Your task to perform on an android device: change alarm snooze length Image 0: 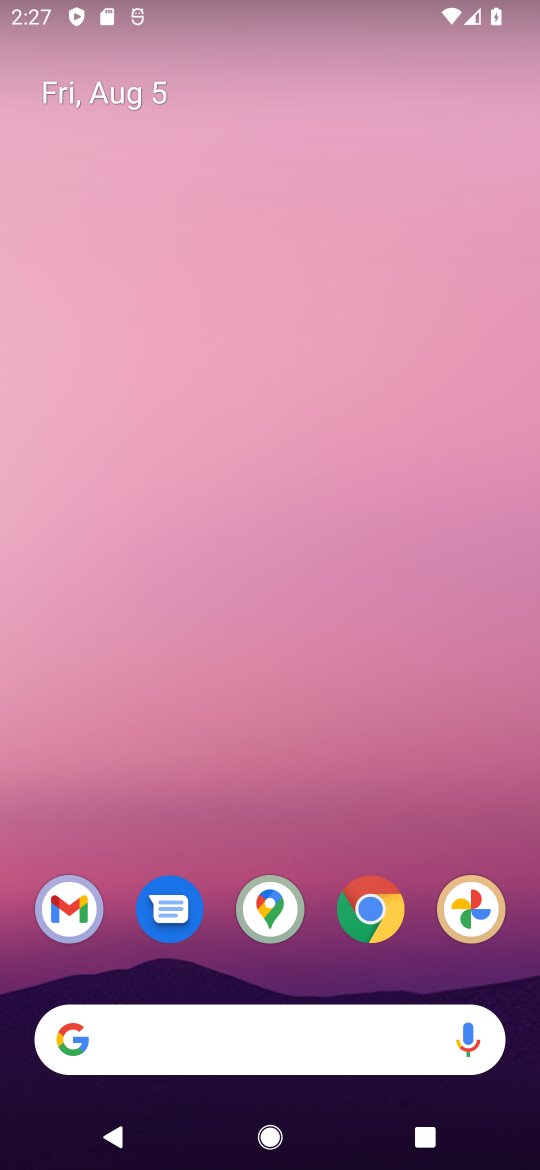
Step 0: drag from (230, 995) to (282, 201)
Your task to perform on an android device: change alarm snooze length Image 1: 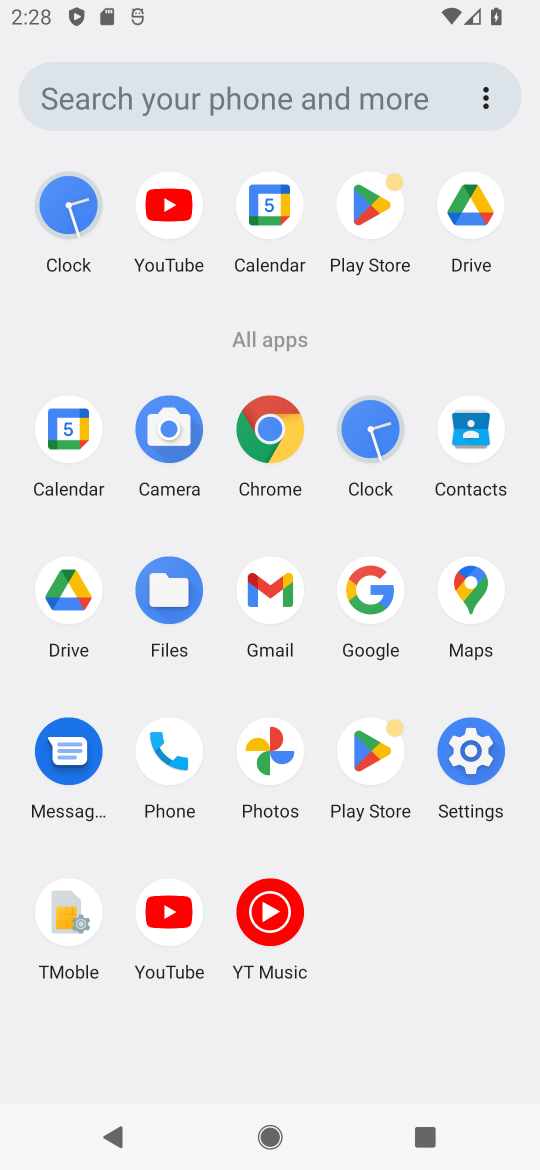
Step 1: click (358, 465)
Your task to perform on an android device: change alarm snooze length Image 2: 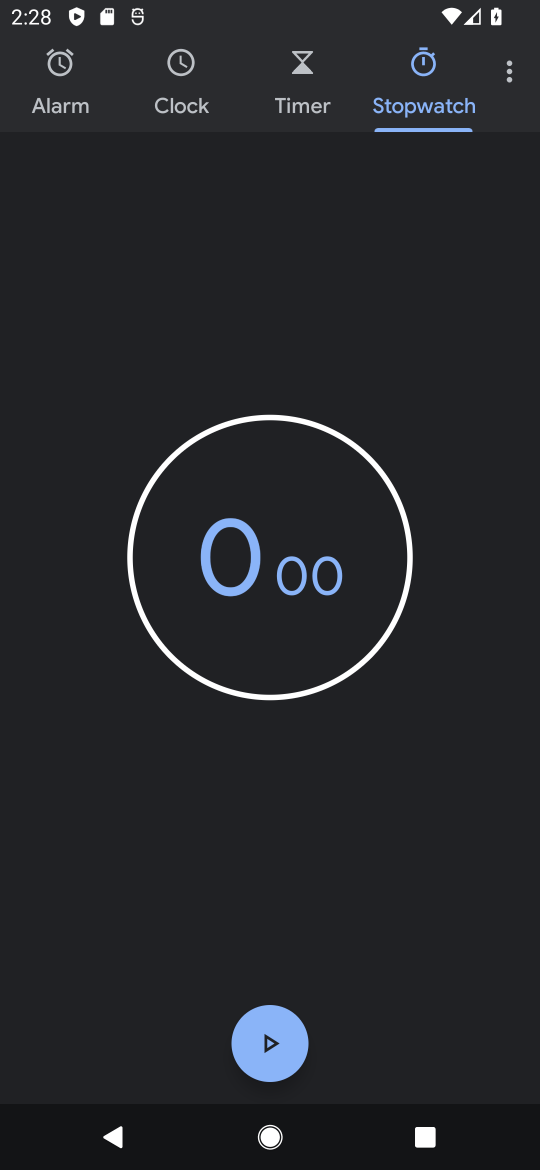
Step 2: click (69, 125)
Your task to perform on an android device: change alarm snooze length Image 3: 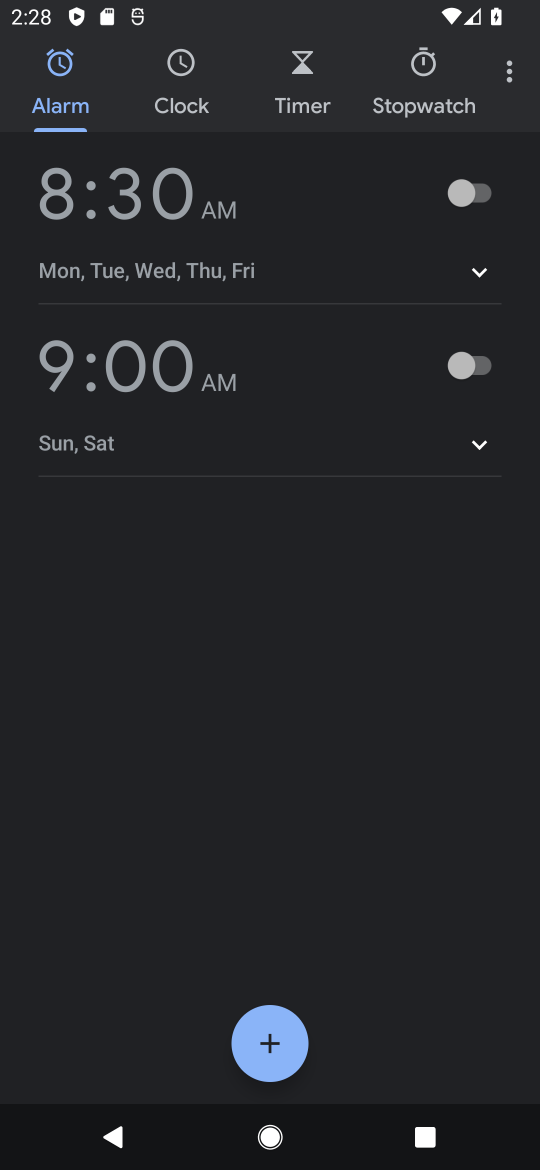
Step 3: click (464, 160)
Your task to perform on an android device: change alarm snooze length Image 4: 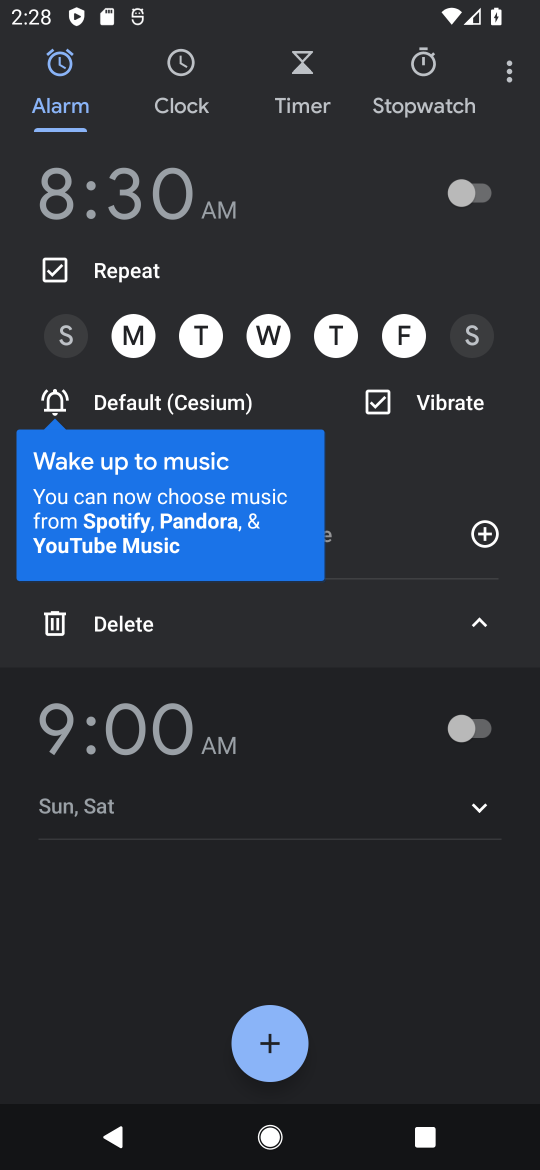
Step 4: task complete